Your task to perform on an android device: open a new tab in the chrome app Image 0: 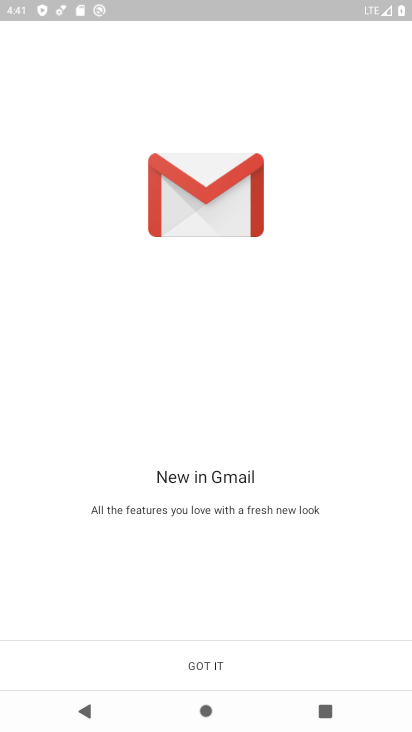
Step 0: press home button
Your task to perform on an android device: open a new tab in the chrome app Image 1: 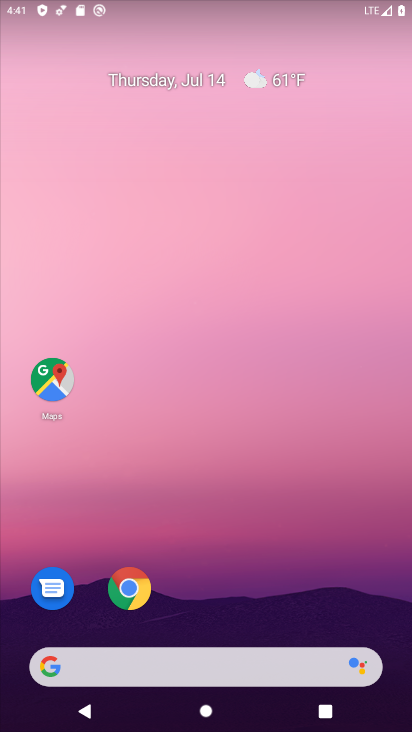
Step 1: click (131, 594)
Your task to perform on an android device: open a new tab in the chrome app Image 2: 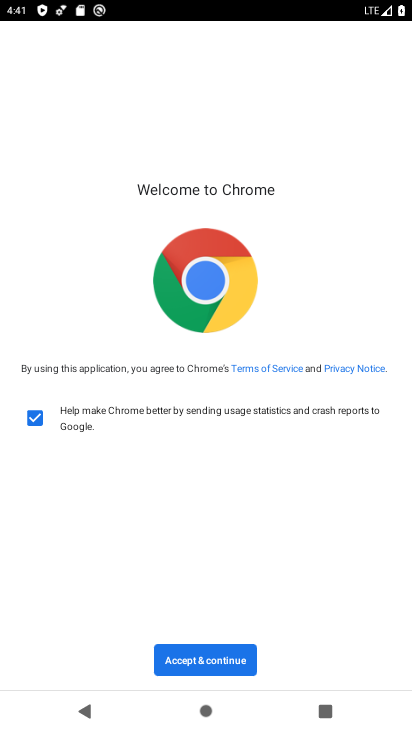
Step 2: click (191, 651)
Your task to perform on an android device: open a new tab in the chrome app Image 3: 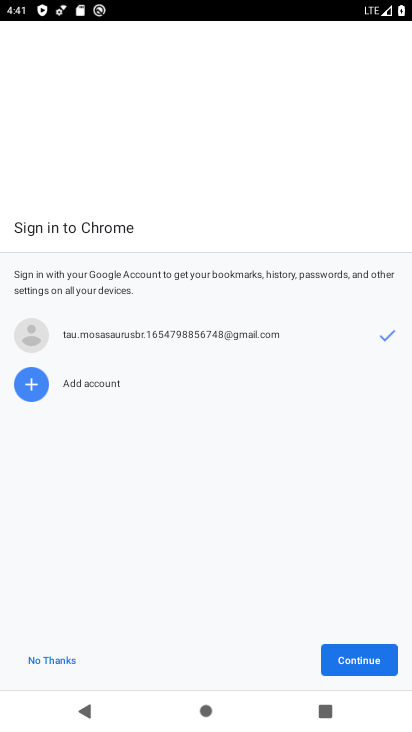
Step 3: click (369, 669)
Your task to perform on an android device: open a new tab in the chrome app Image 4: 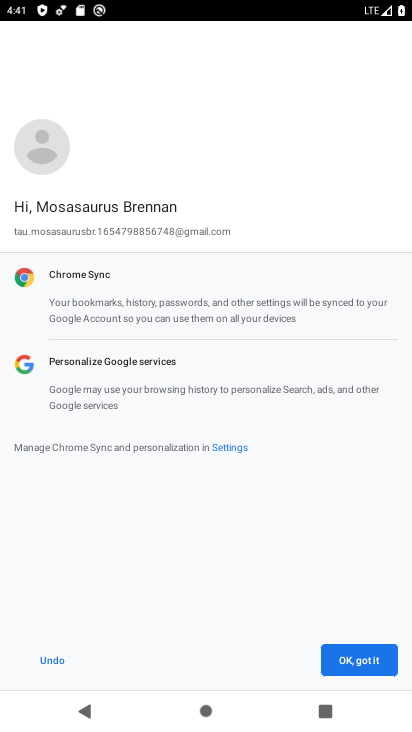
Step 4: click (369, 669)
Your task to perform on an android device: open a new tab in the chrome app Image 5: 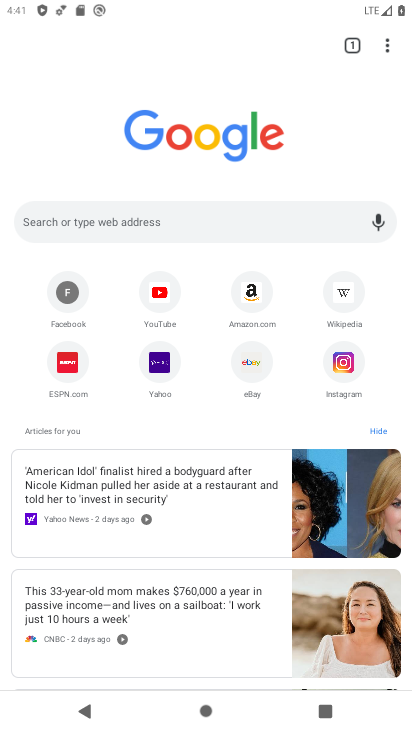
Step 5: click (382, 55)
Your task to perform on an android device: open a new tab in the chrome app Image 6: 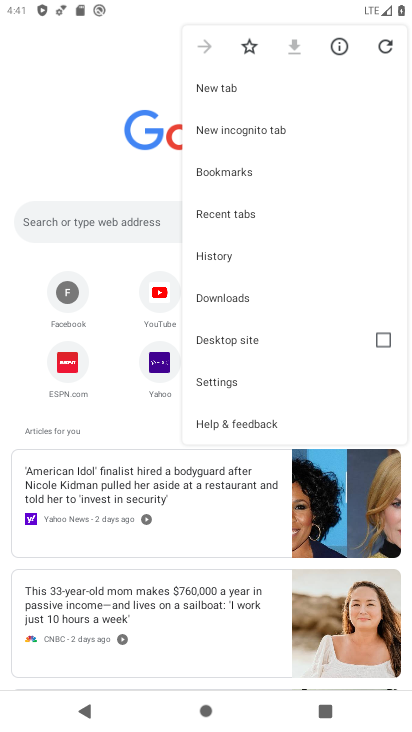
Step 6: click (234, 99)
Your task to perform on an android device: open a new tab in the chrome app Image 7: 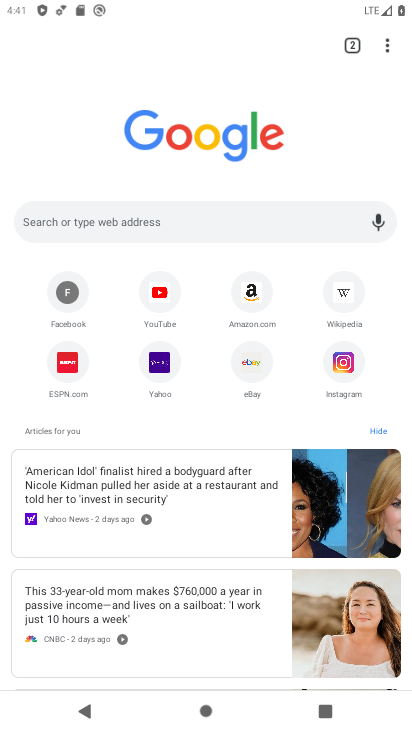
Step 7: task complete